Your task to perform on an android device: turn on priority inbox in the gmail app Image 0: 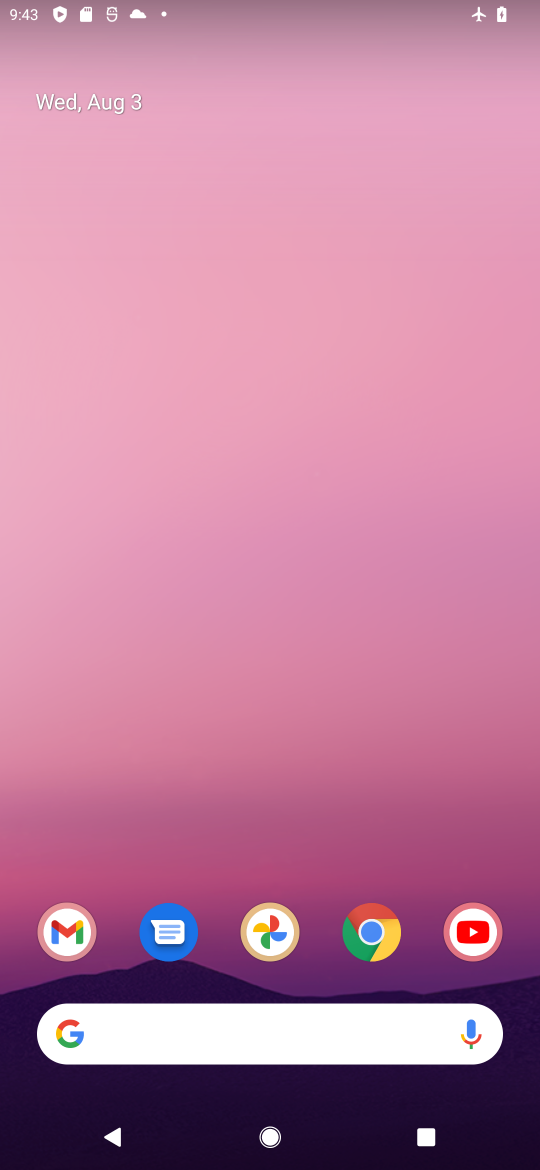
Step 0: click (45, 932)
Your task to perform on an android device: turn on priority inbox in the gmail app Image 1: 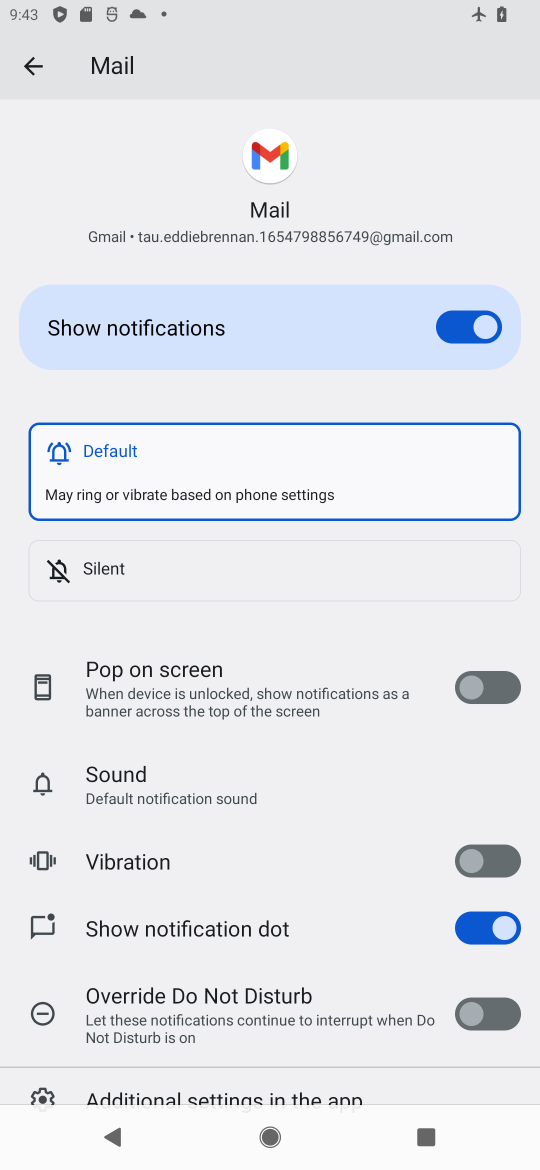
Step 1: drag from (343, 982) to (352, 431)
Your task to perform on an android device: turn on priority inbox in the gmail app Image 2: 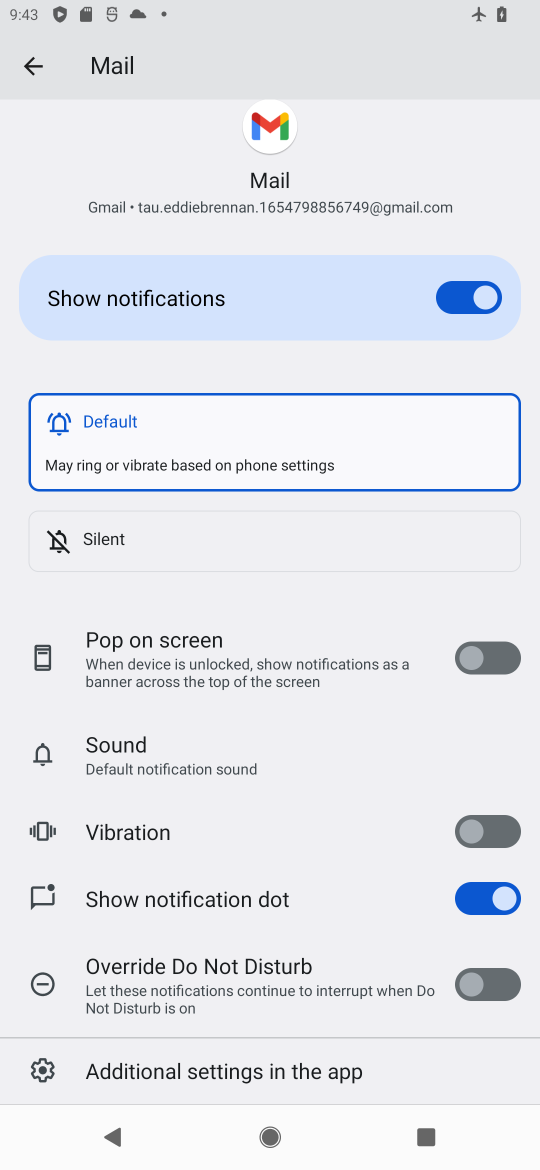
Step 2: click (38, 88)
Your task to perform on an android device: turn on priority inbox in the gmail app Image 3: 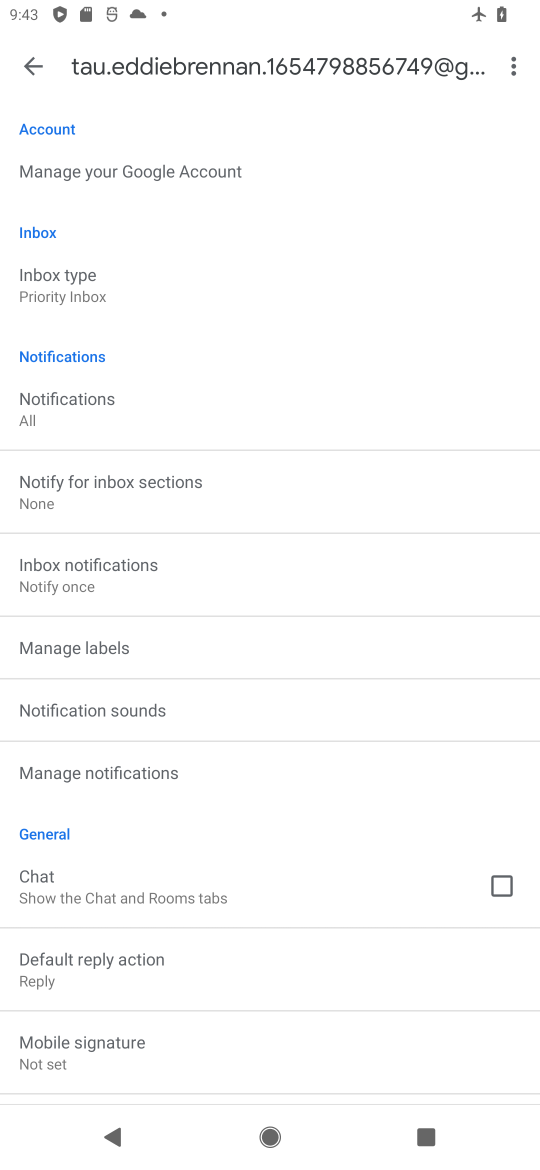
Step 3: click (158, 300)
Your task to perform on an android device: turn on priority inbox in the gmail app Image 4: 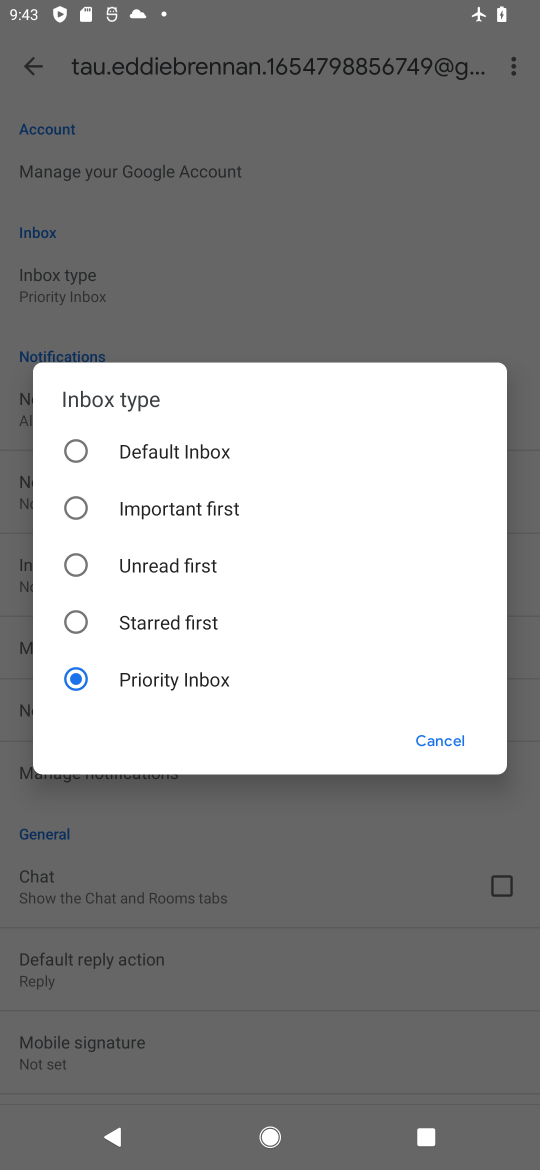
Step 4: task complete